Your task to perform on an android device: open a bookmark in the chrome app Image 0: 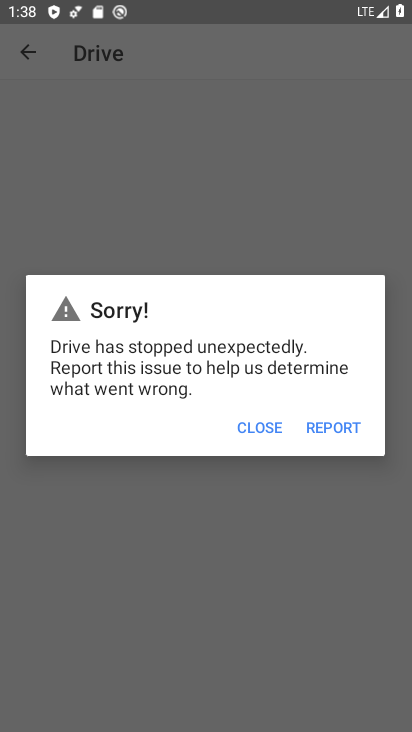
Step 0: press home button
Your task to perform on an android device: open a bookmark in the chrome app Image 1: 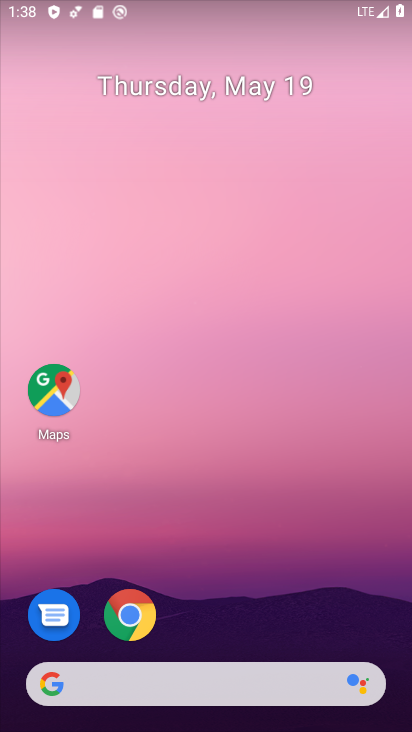
Step 1: drag from (280, 589) to (273, 298)
Your task to perform on an android device: open a bookmark in the chrome app Image 2: 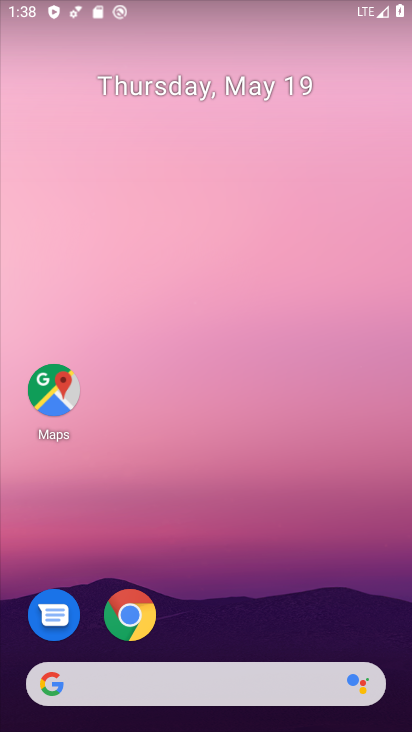
Step 2: drag from (187, 612) to (227, 169)
Your task to perform on an android device: open a bookmark in the chrome app Image 3: 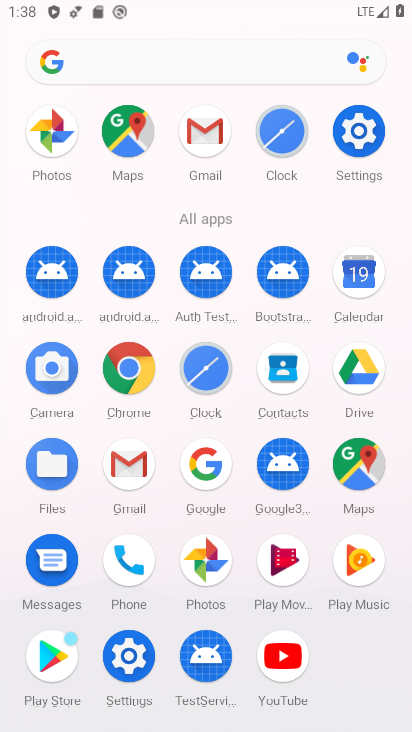
Step 3: click (127, 355)
Your task to perform on an android device: open a bookmark in the chrome app Image 4: 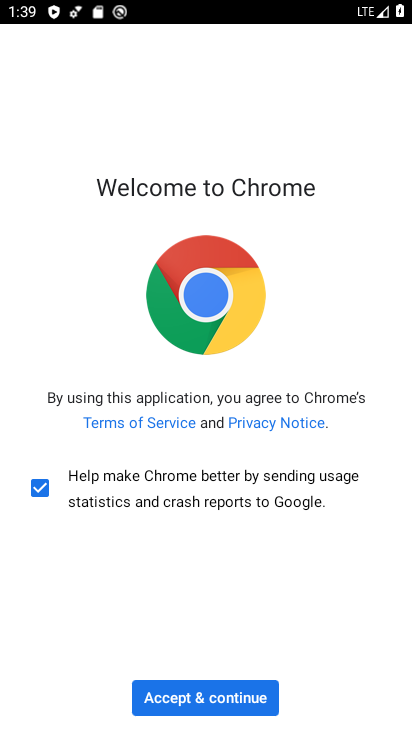
Step 4: click (206, 693)
Your task to perform on an android device: open a bookmark in the chrome app Image 5: 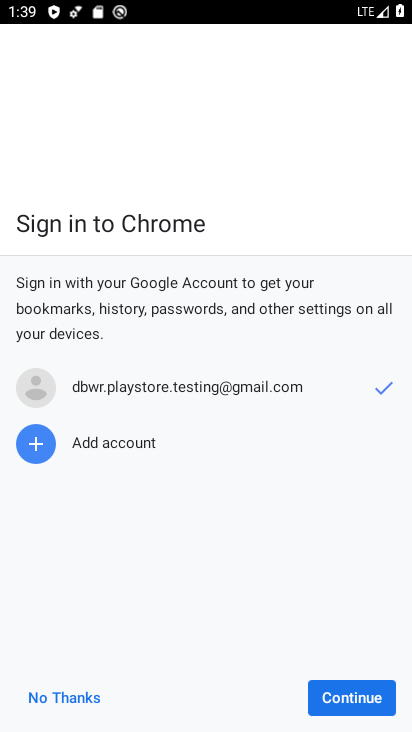
Step 5: click (322, 695)
Your task to perform on an android device: open a bookmark in the chrome app Image 6: 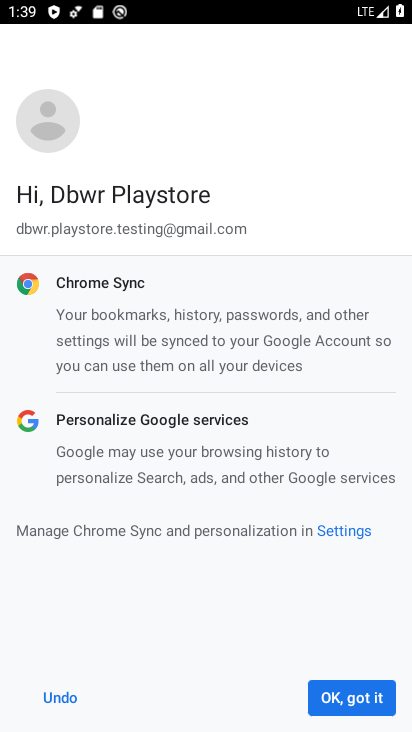
Step 6: click (337, 691)
Your task to perform on an android device: open a bookmark in the chrome app Image 7: 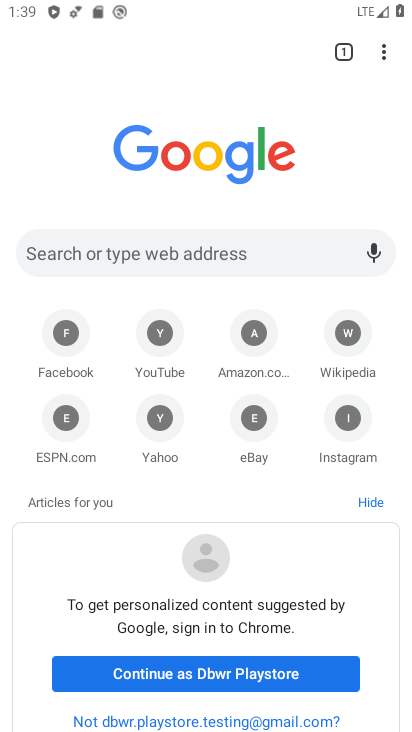
Step 7: click (379, 47)
Your task to perform on an android device: open a bookmark in the chrome app Image 8: 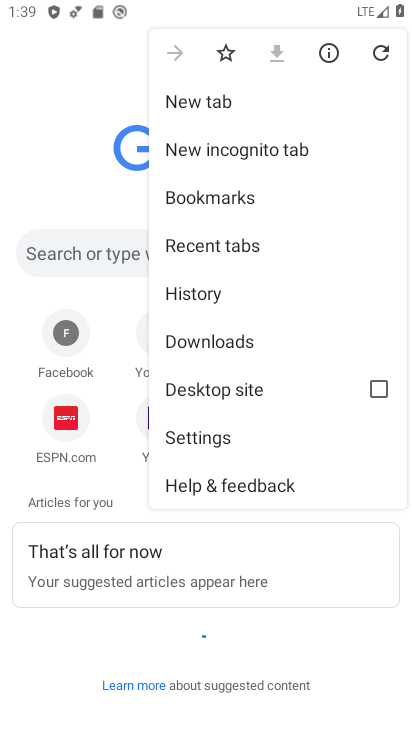
Step 8: click (225, 187)
Your task to perform on an android device: open a bookmark in the chrome app Image 9: 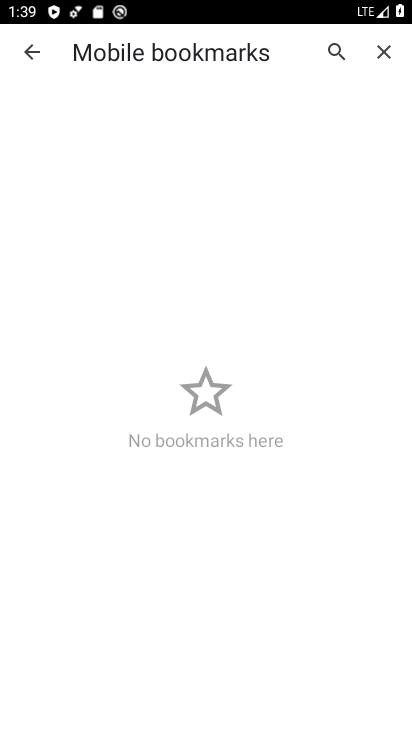
Step 9: task complete